Your task to perform on an android device: Search for seafood restaurants on Google Maps Image 0: 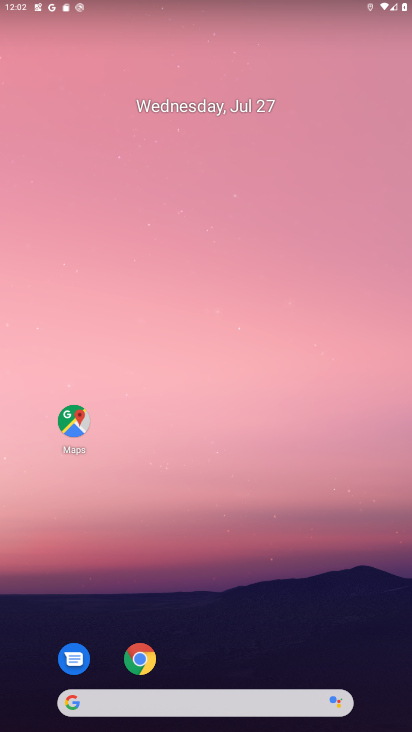
Step 0: drag from (276, 713) to (315, 15)
Your task to perform on an android device: Search for seafood restaurants on Google Maps Image 1: 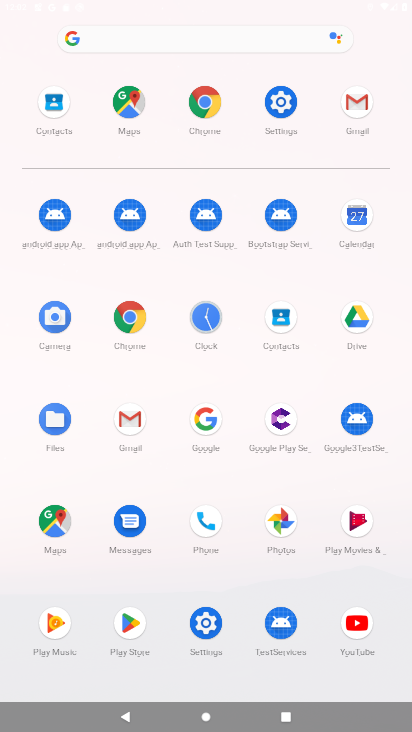
Step 1: click (50, 515)
Your task to perform on an android device: Search for seafood restaurants on Google Maps Image 2: 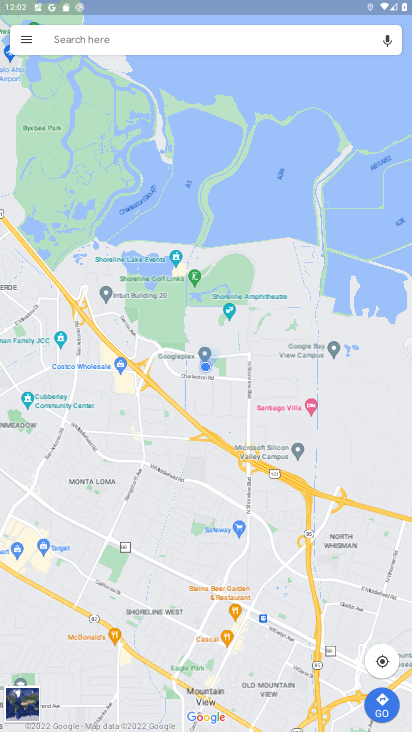
Step 2: click (271, 18)
Your task to perform on an android device: Search for seafood restaurants on Google Maps Image 3: 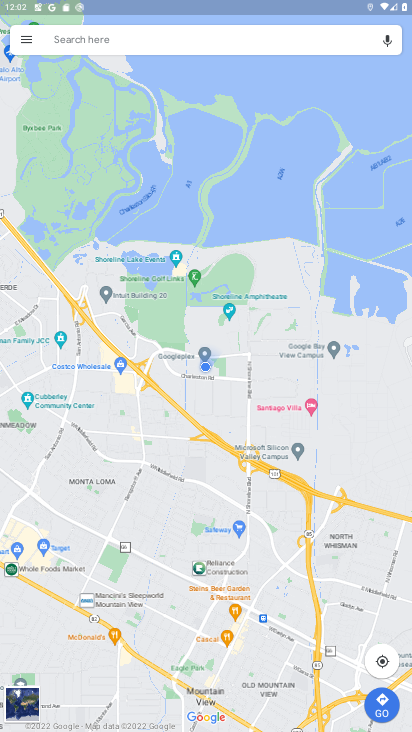
Step 3: click (275, 36)
Your task to perform on an android device: Search for seafood restaurants on Google Maps Image 4: 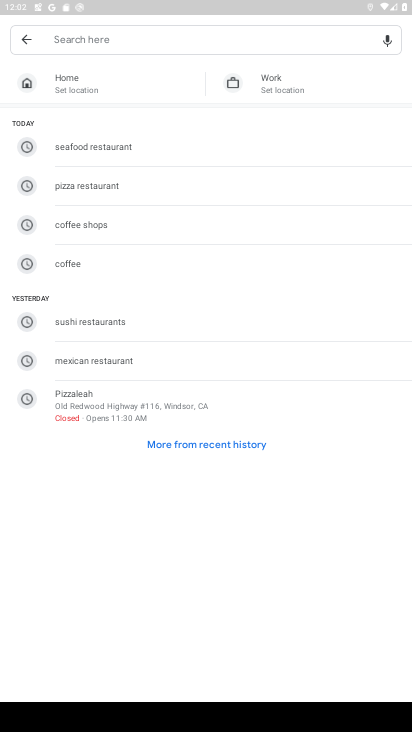
Step 4: click (150, 153)
Your task to perform on an android device: Search for seafood restaurants on Google Maps Image 5: 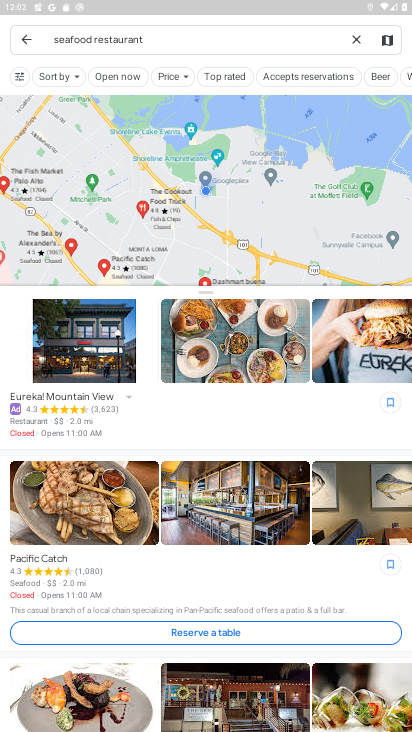
Step 5: task complete